Your task to perform on an android device: open app "Google Duo" (install if not already installed) Image 0: 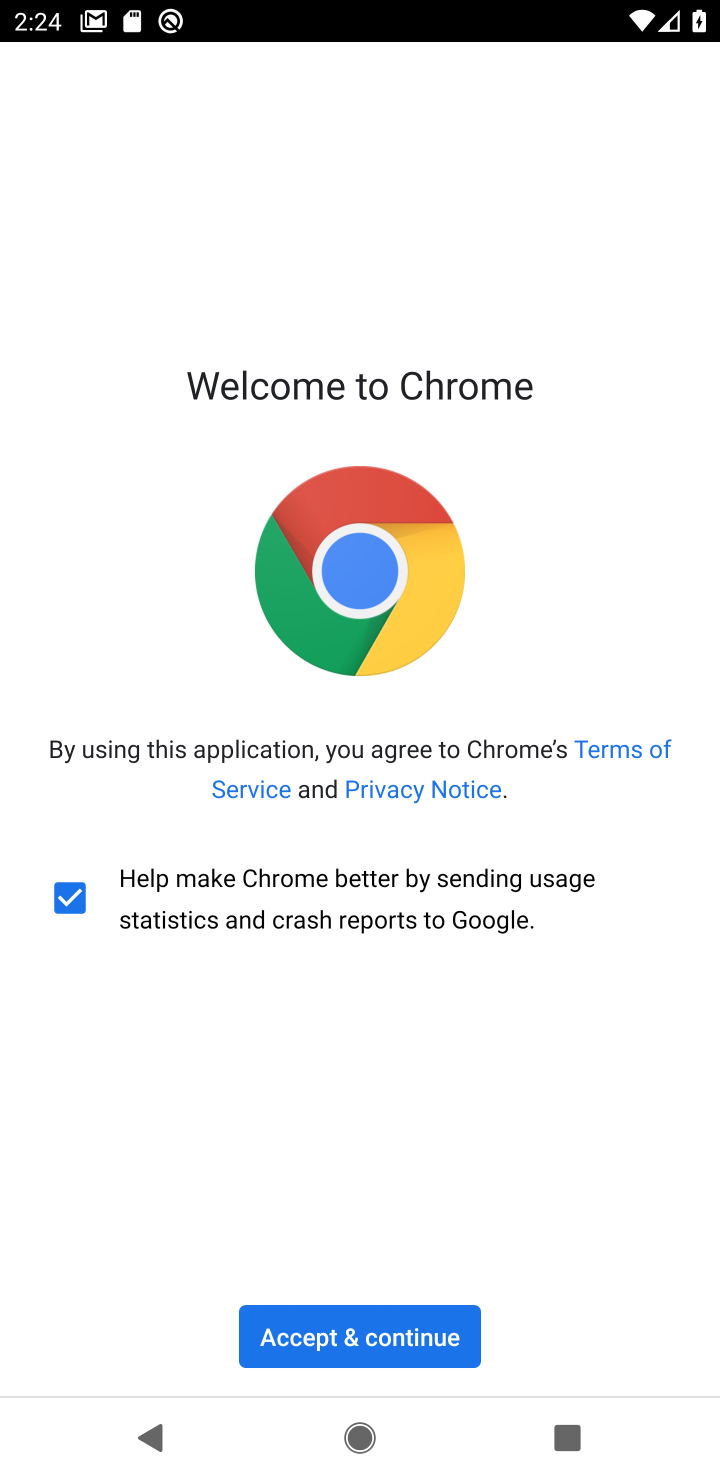
Step 0: press home button
Your task to perform on an android device: open app "Google Duo" (install if not already installed) Image 1: 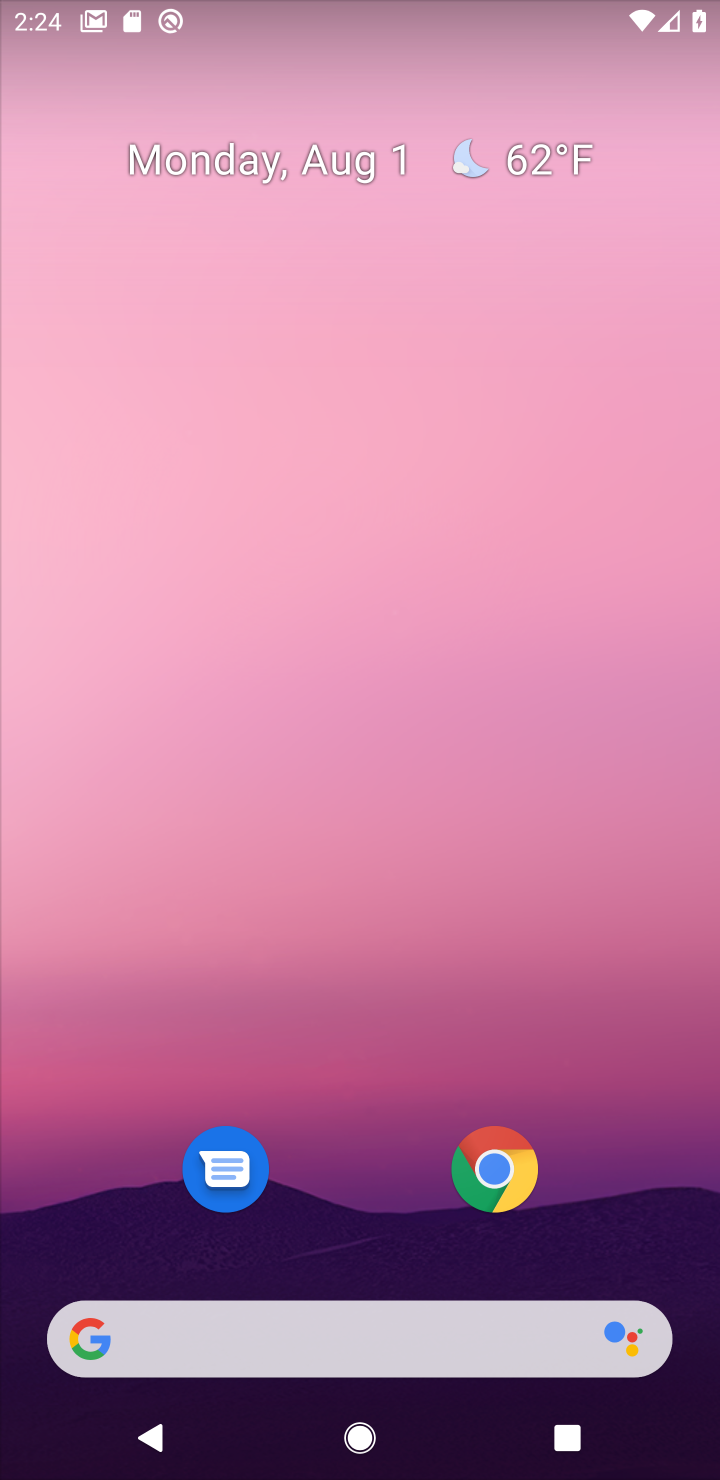
Step 1: drag from (354, 1128) to (471, 158)
Your task to perform on an android device: open app "Google Duo" (install if not already installed) Image 2: 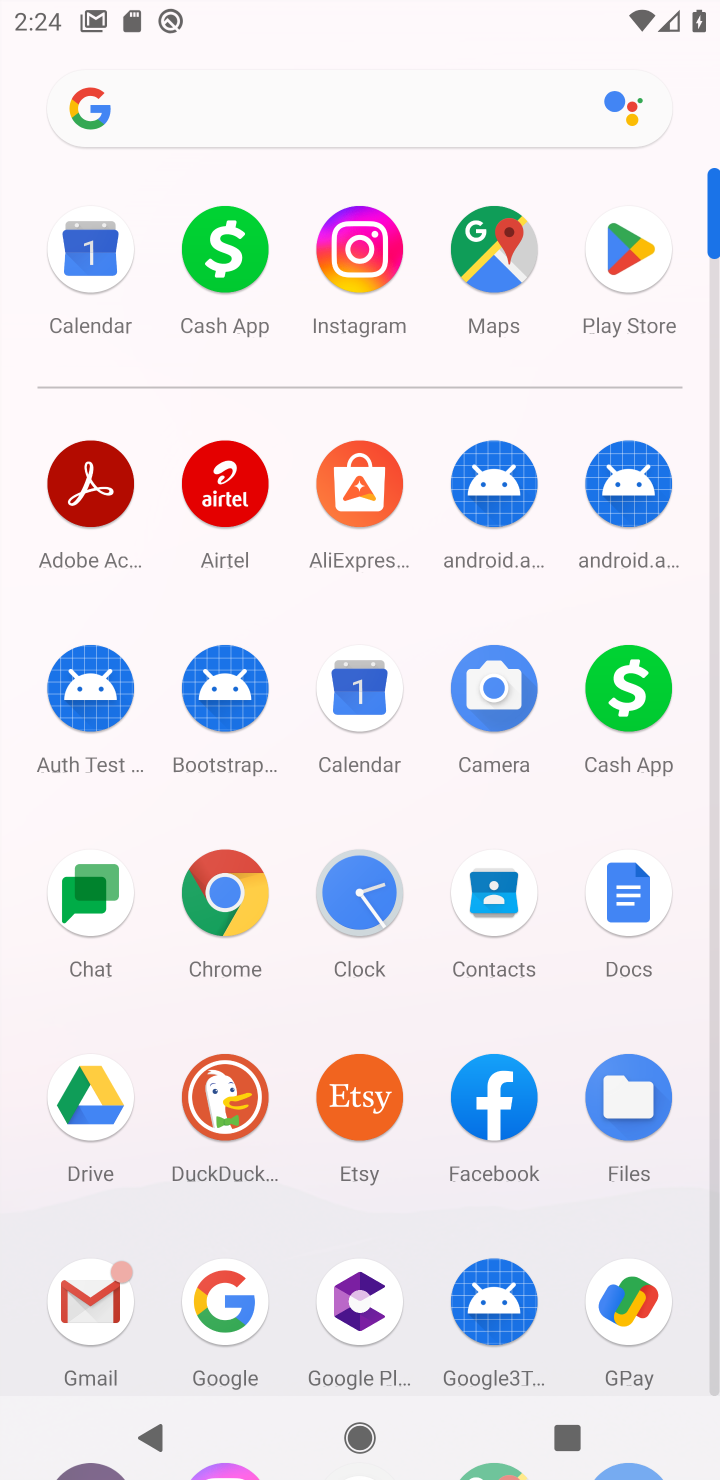
Step 2: click (618, 310)
Your task to perform on an android device: open app "Google Duo" (install if not already installed) Image 3: 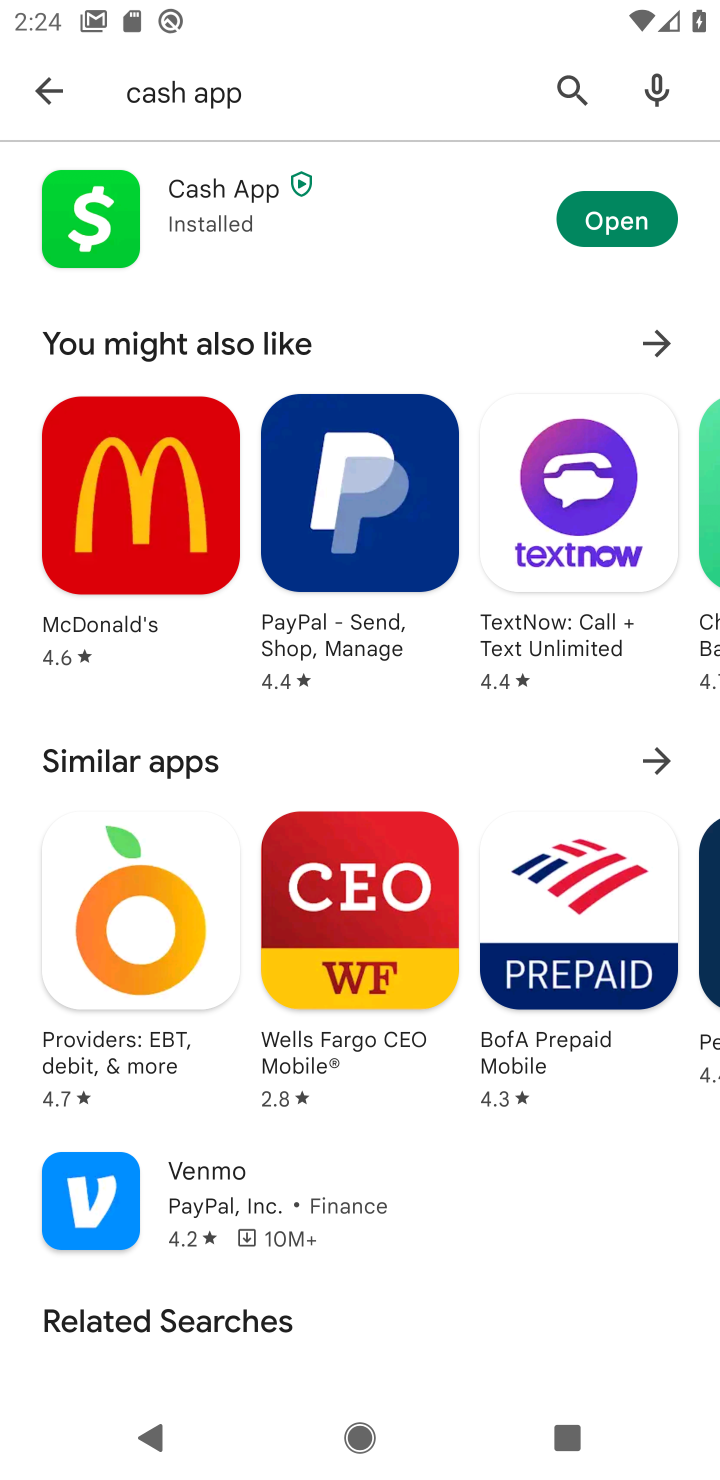
Step 3: click (41, 90)
Your task to perform on an android device: open app "Google Duo" (install if not already installed) Image 4: 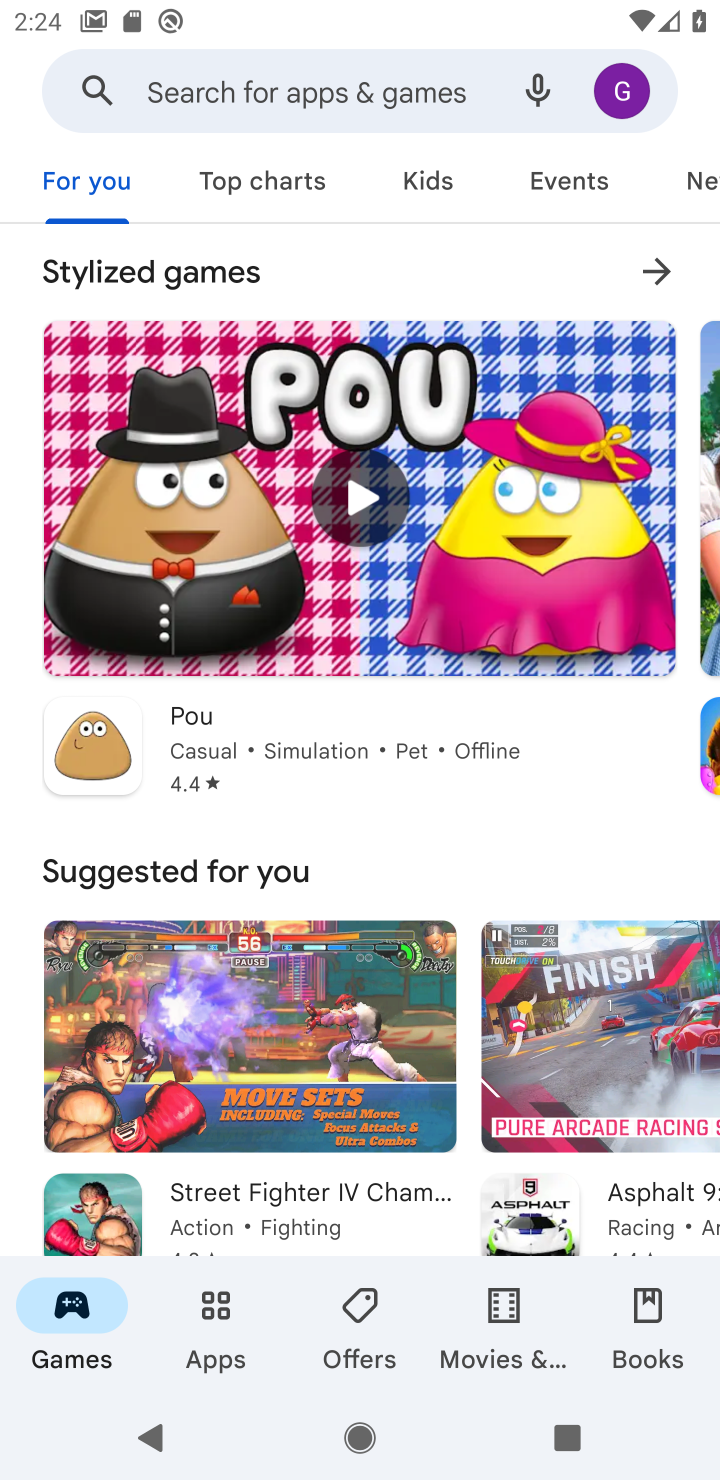
Step 4: click (359, 100)
Your task to perform on an android device: open app "Google Duo" (install if not already installed) Image 5: 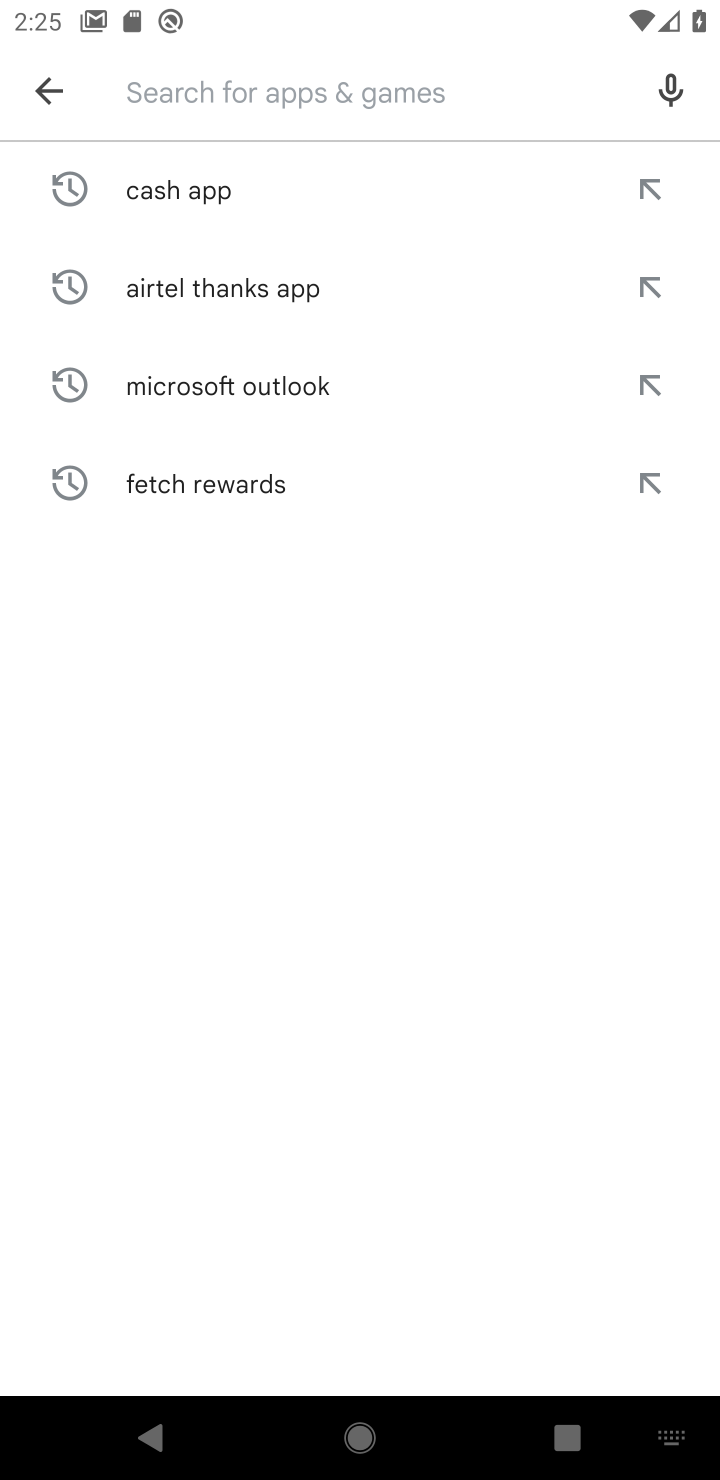
Step 5: type "Google Duo"
Your task to perform on an android device: open app "Google Duo" (install if not already installed) Image 6: 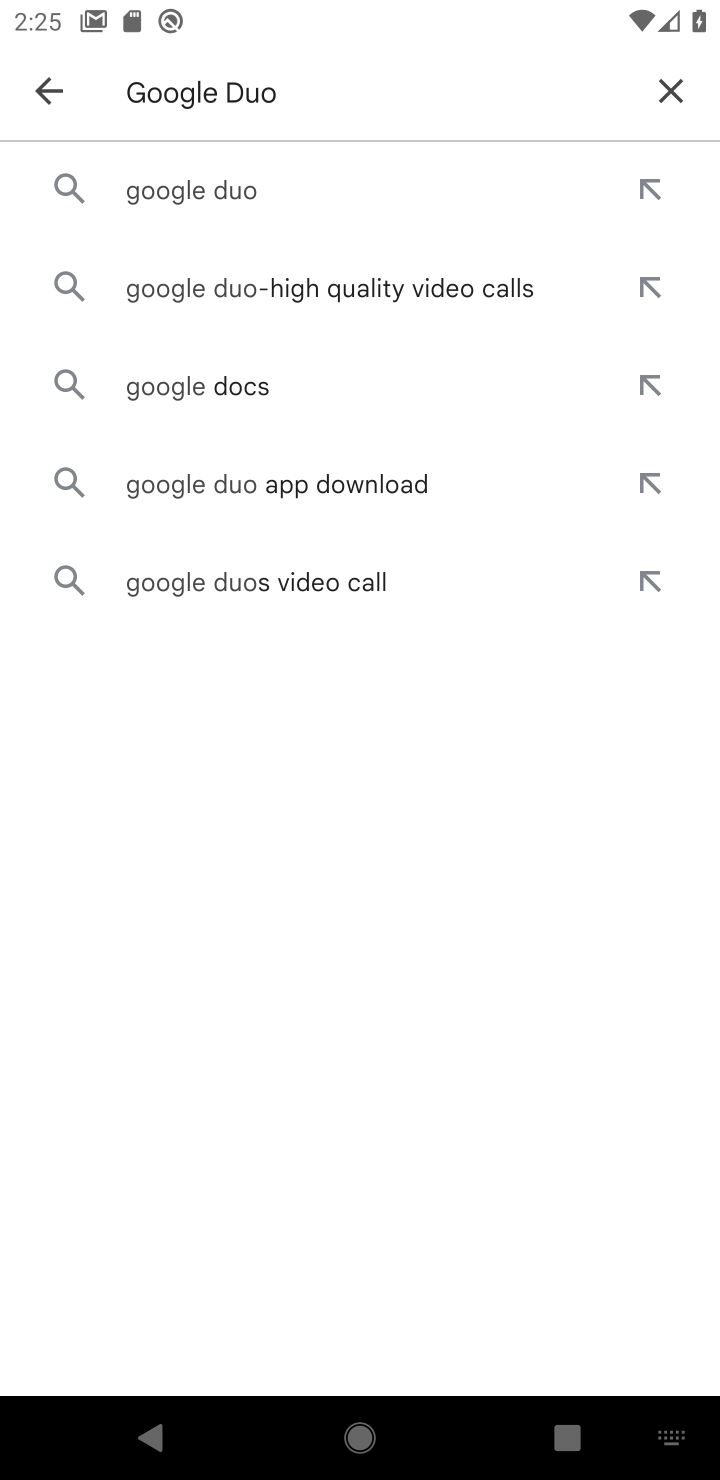
Step 6: click (215, 188)
Your task to perform on an android device: open app "Google Duo" (install if not already installed) Image 7: 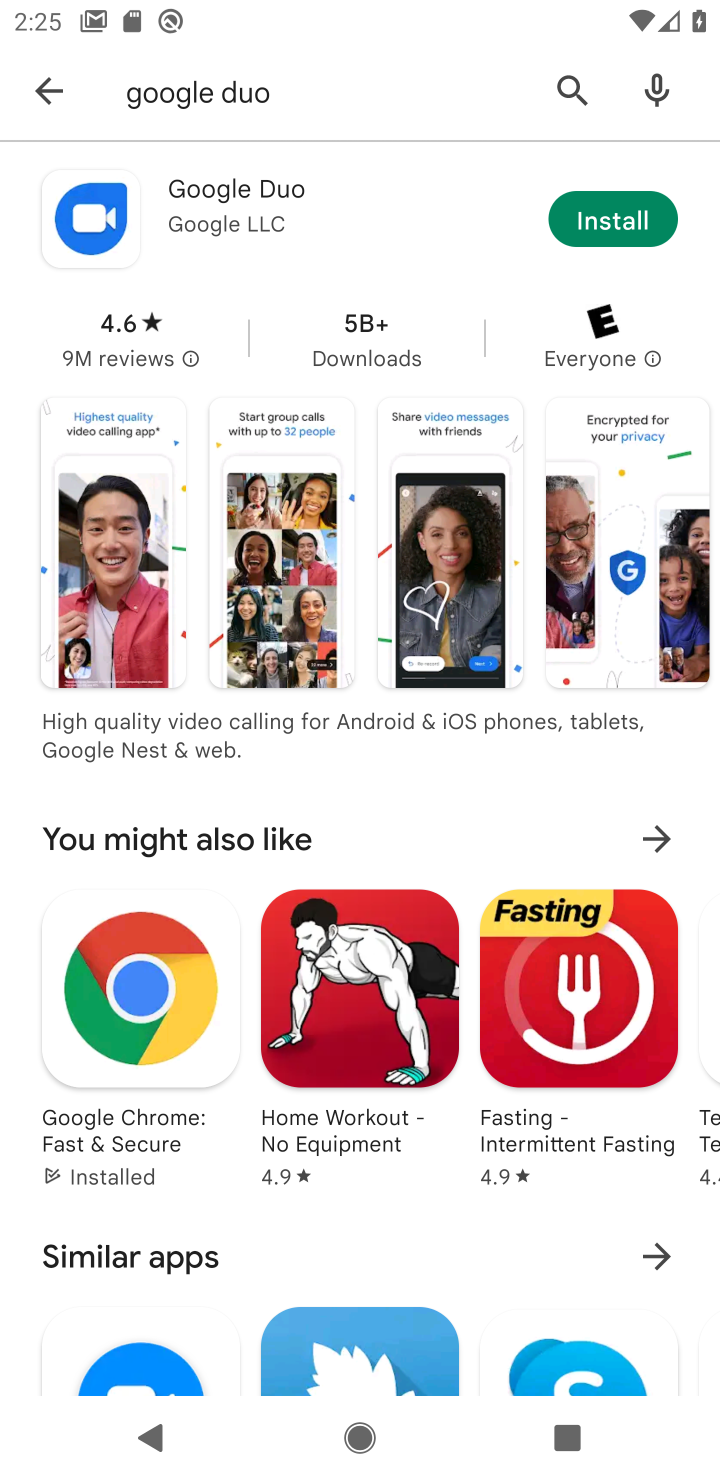
Step 7: click (607, 209)
Your task to perform on an android device: open app "Google Duo" (install if not already installed) Image 8: 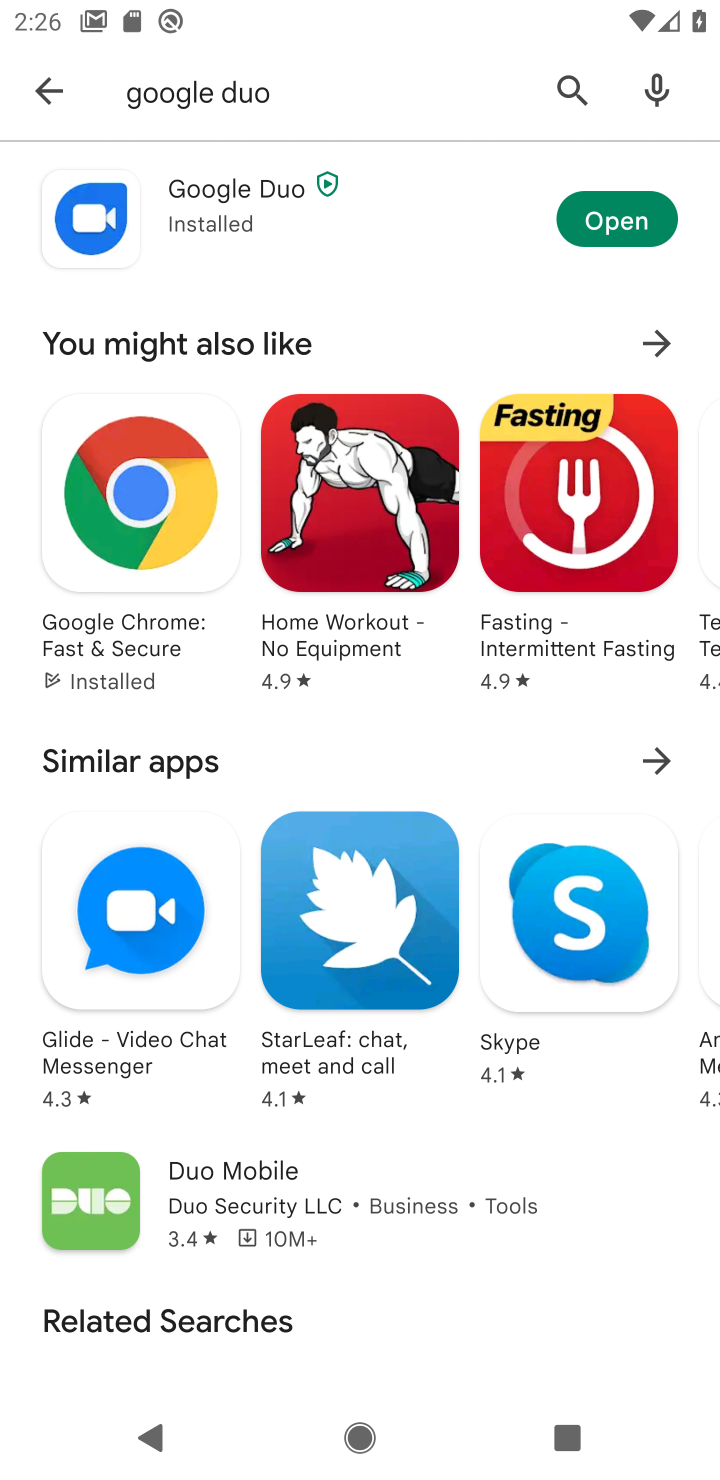
Step 8: click (597, 217)
Your task to perform on an android device: open app "Google Duo" (install if not already installed) Image 9: 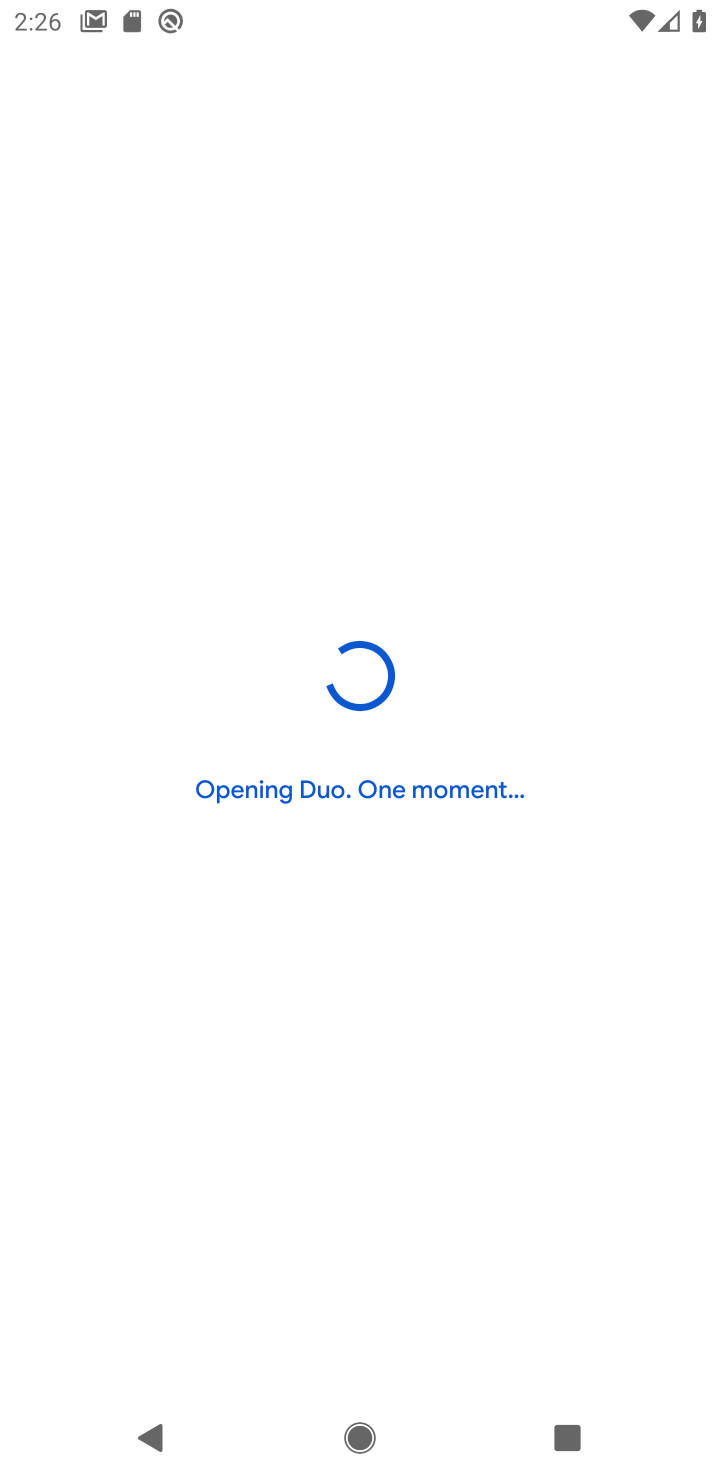
Step 9: task complete